Your task to perform on an android device: refresh tabs in the chrome app Image 0: 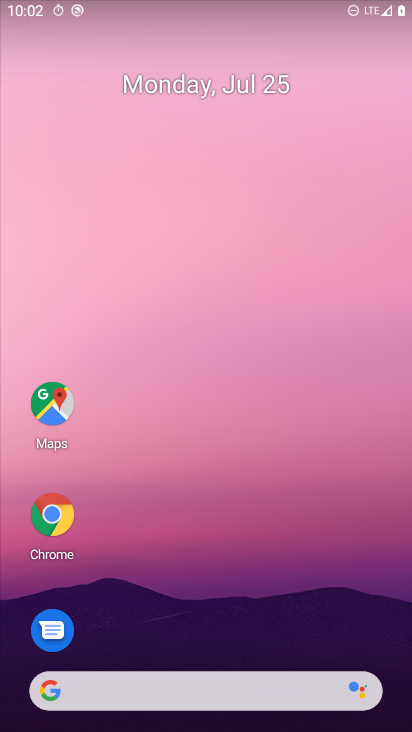
Step 0: click (40, 500)
Your task to perform on an android device: refresh tabs in the chrome app Image 1: 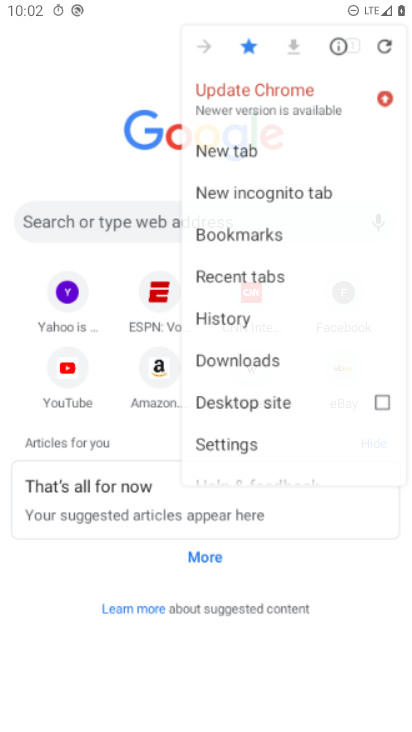
Step 1: click (28, 87)
Your task to perform on an android device: refresh tabs in the chrome app Image 2: 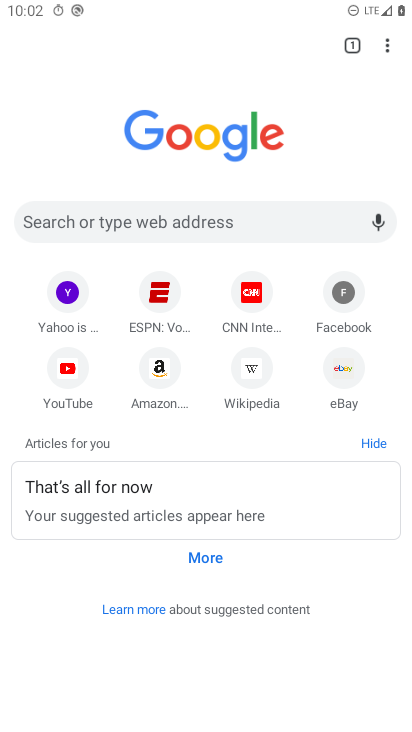
Step 2: click (70, 221)
Your task to perform on an android device: refresh tabs in the chrome app Image 3: 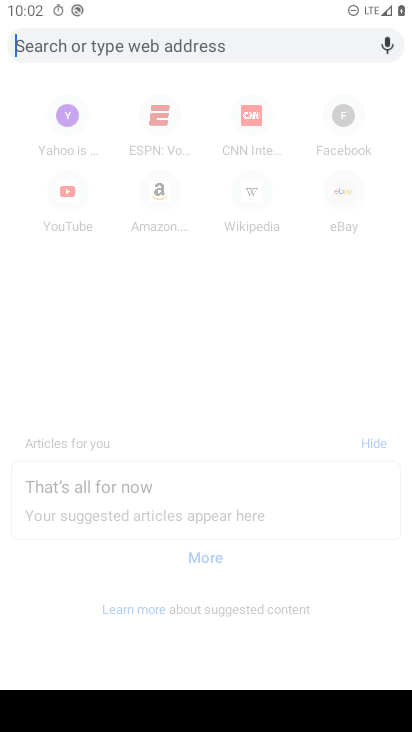
Step 3: task complete